Your task to perform on an android device: delete location history Image 0: 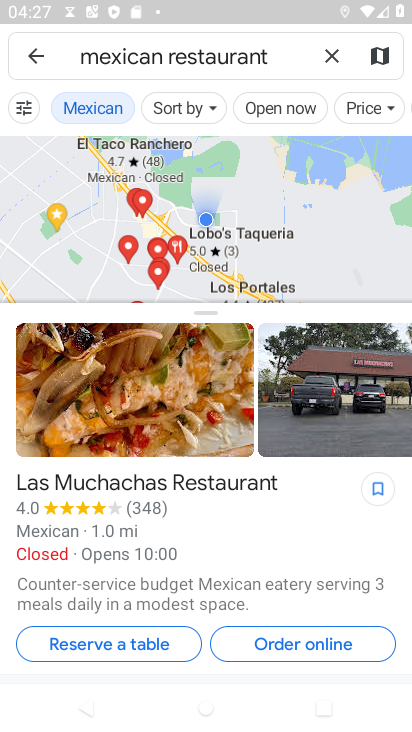
Step 0: press back button
Your task to perform on an android device: delete location history Image 1: 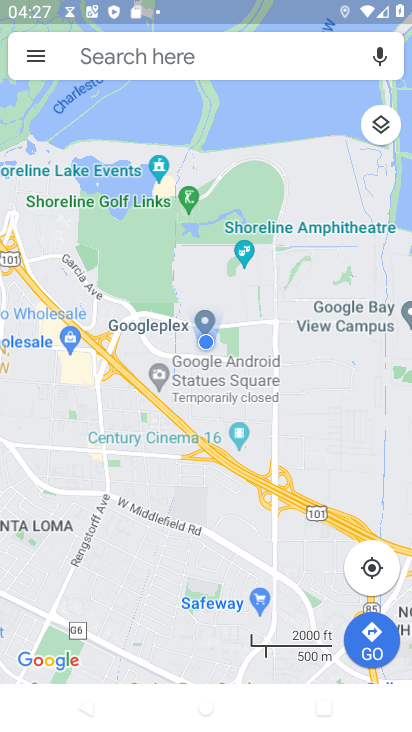
Step 1: press back button
Your task to perform on an android device: delete location history Image 2: 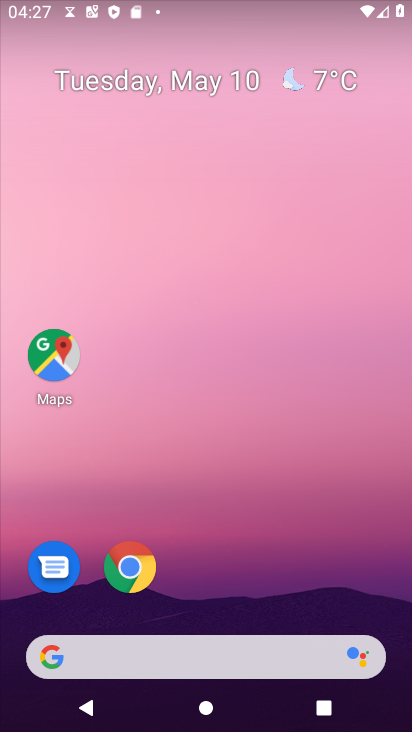
Step 2: click (53, 354)
Your task to perform on an android device: delete location history Image 3: 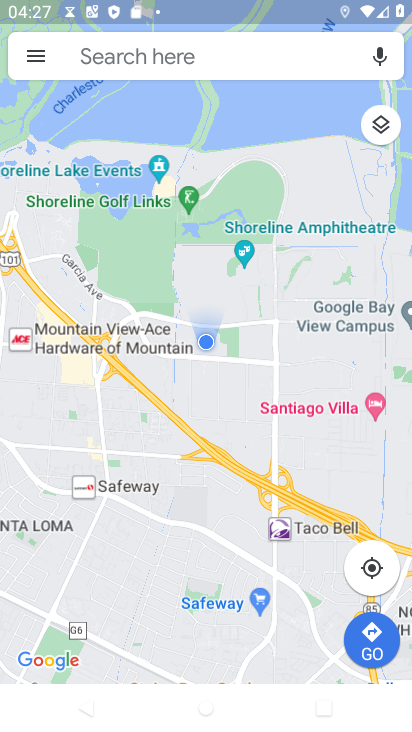
Step 3: click (39, 56)
Your task to perform on an android device: delete location history Image 4: 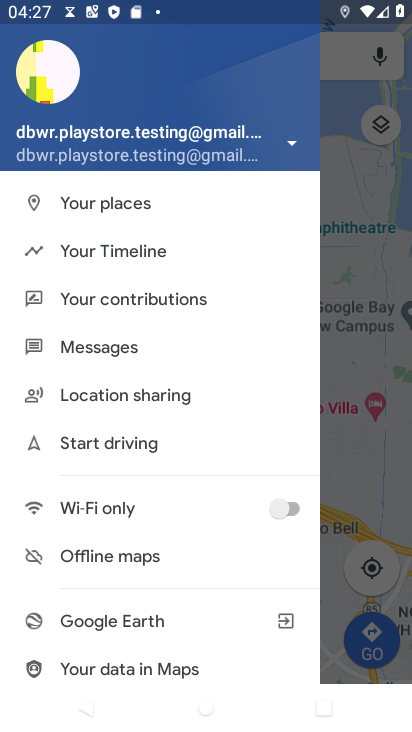
Step 4: drag from (99, 597) to (90, 441)
Your task to perform on an android device: delete location history Image 5: 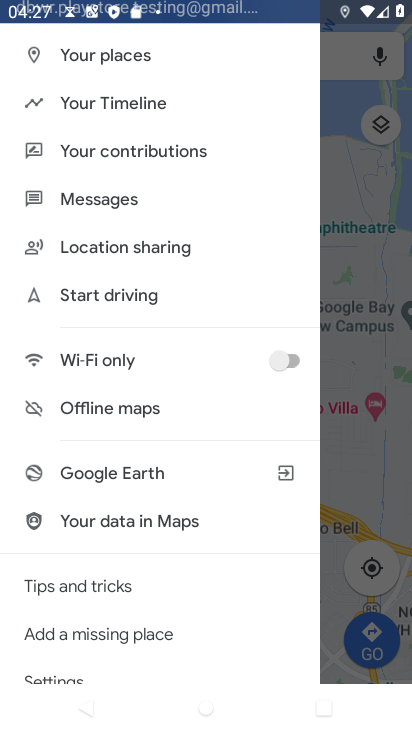
Step 5: drag from (98, 600) to (111, 486)
Your task to perform on an android device: delete location history Image 6: 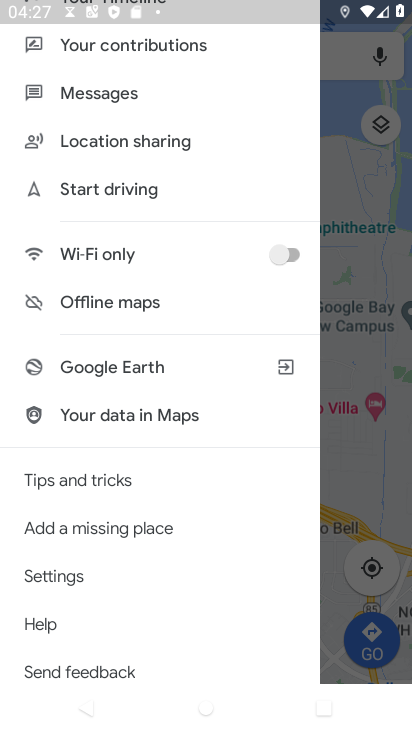
Step 6: click (61, 578)
Your task to perform on an android device: delete location history Image 7: 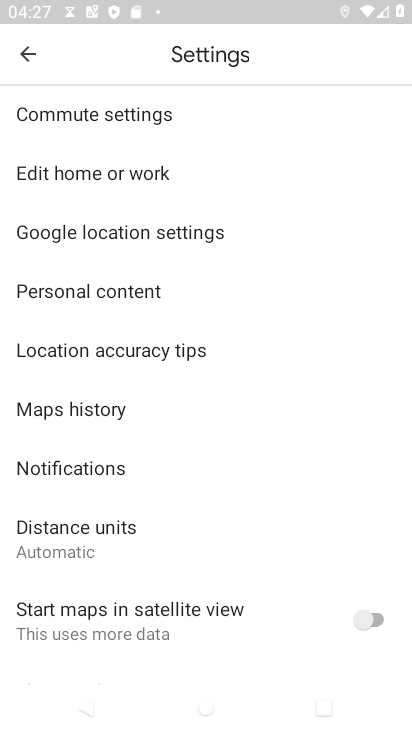
Step 7: click (100, 285)
Your task to perform on an android device: delete location history Image 8: 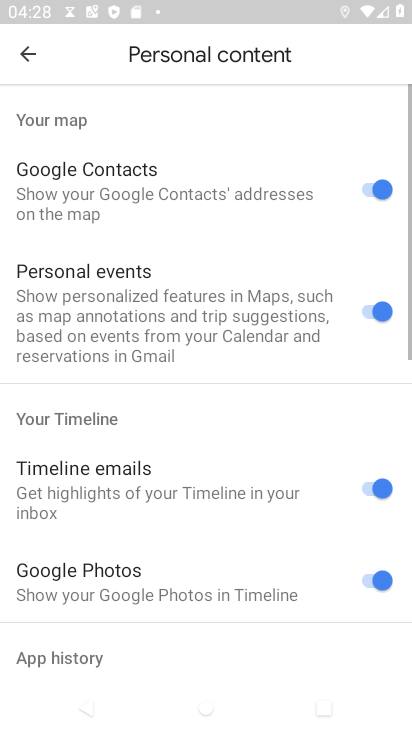
Step 8: drag from (144, 520) to (189, 370)
Your task to perform on an android device: delete location history Image 9: 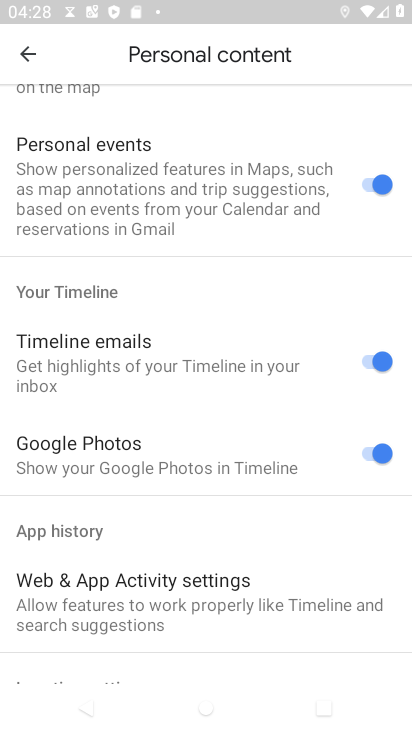
Step 9: drag from (120, 534) to (160, 391)
Your task to perform on an android device: delete location history Image 10: 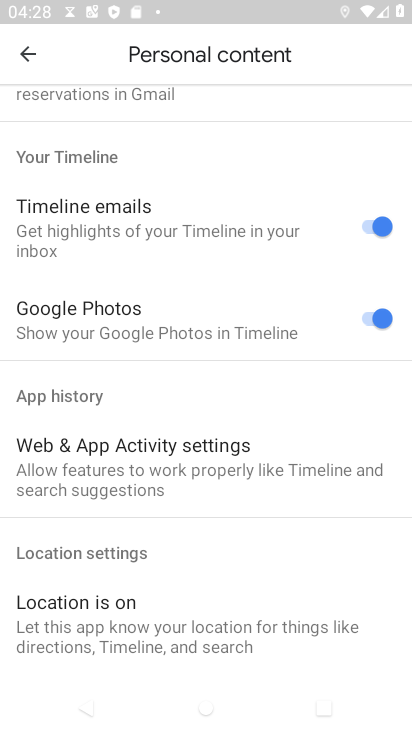
Step 10: drag from (125, 536) to (194, 348)
Your task to perform on an android device: delete location history Image 11: 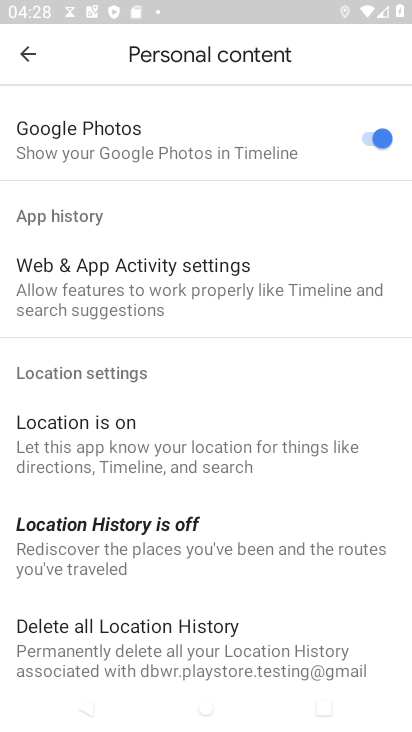
Step 11: drag from (157, 584) to (227, 386)
Your task to perform on an android device: delete location history Image 12: 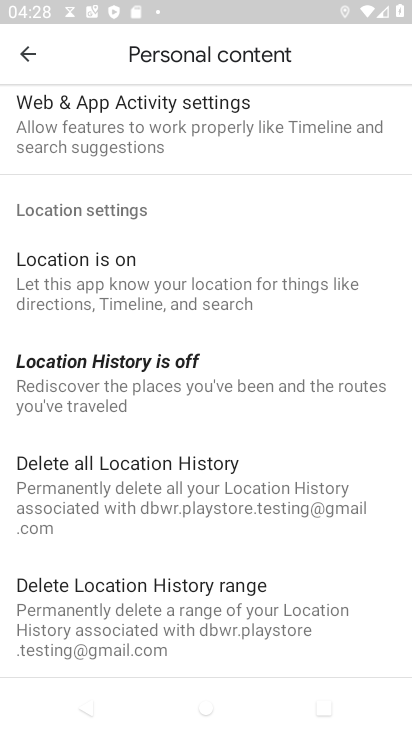
Step 12: click (142, 472)
Your task to perform on an android device: delete location history Image 13: 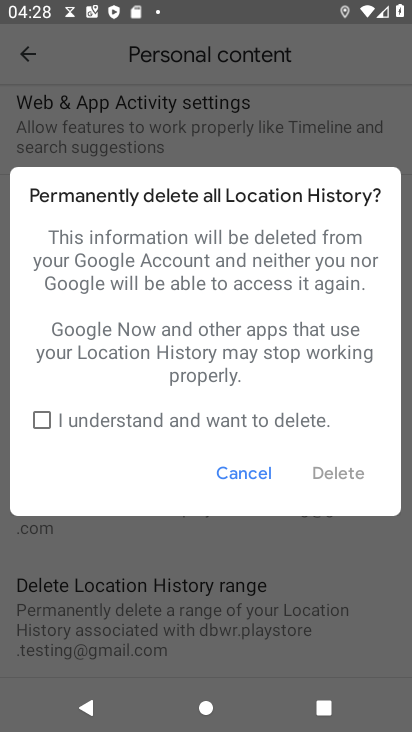
Step 13: click (38, 418)
Your task to perform on an android device: delete location history Image 14: 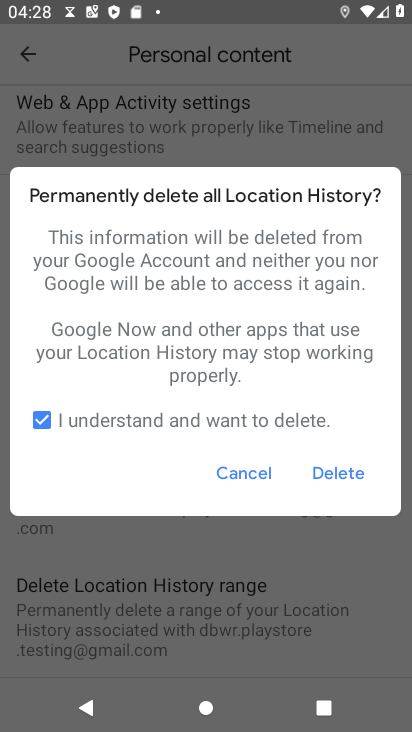
Step 14: click (336, 471)
Your task to perform on an android device: delete location history Image 15: 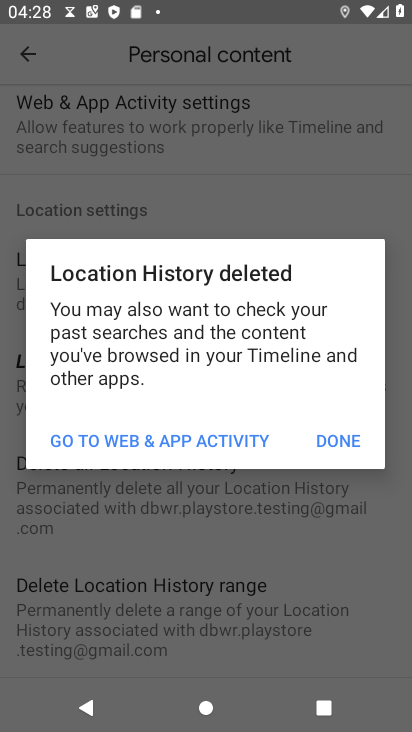
Step 15: click (341, 444)
Your task to perform on an android device: delete location history Image 16: 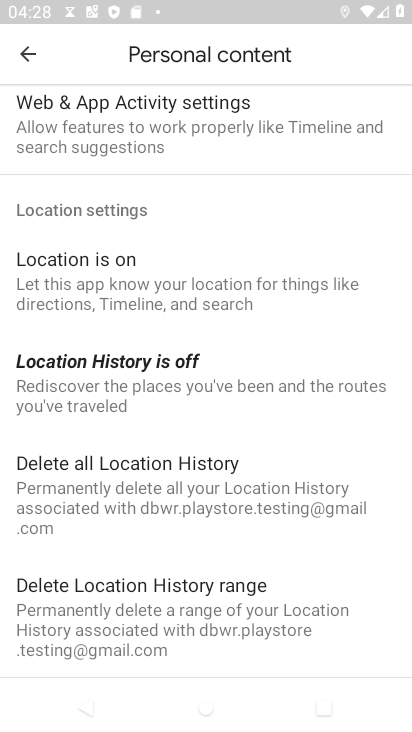
Step 16: task complete